Your task to perform on an android device: Open Reddit.com Image 0: 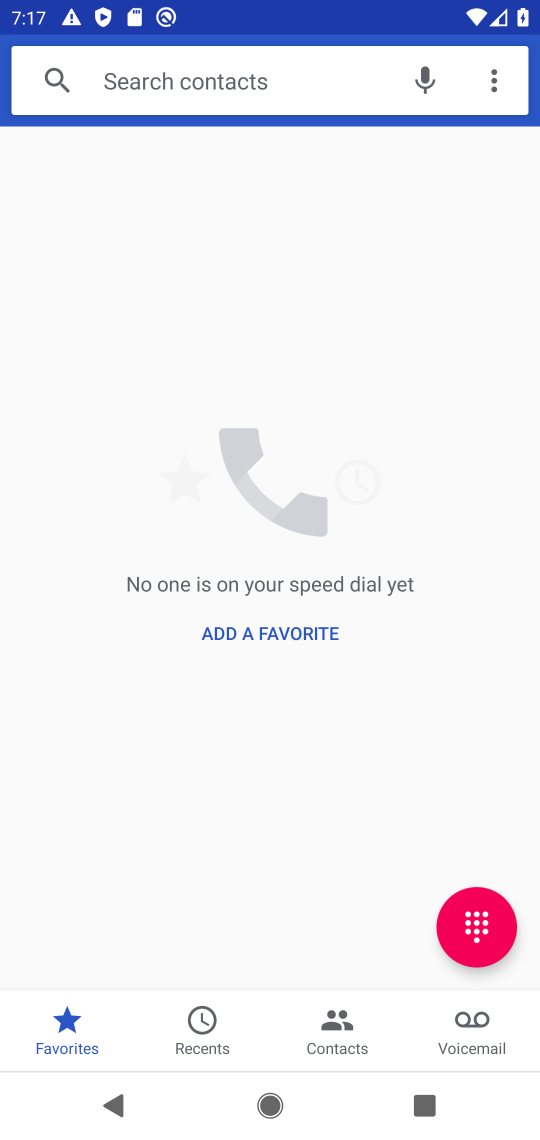
Step 0: press home button
Your task to perform on an android device: Open Reddit.com Image 1: 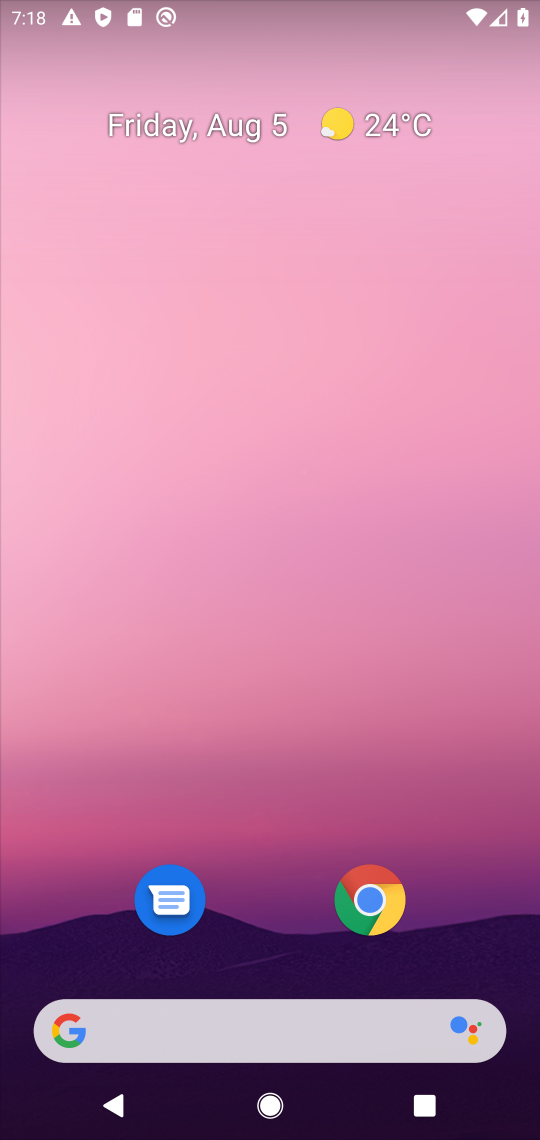
Step 1: drag from (462, 879) to (448, 207)
Your task to perform on an android device: Open Reddit.com Image 2: 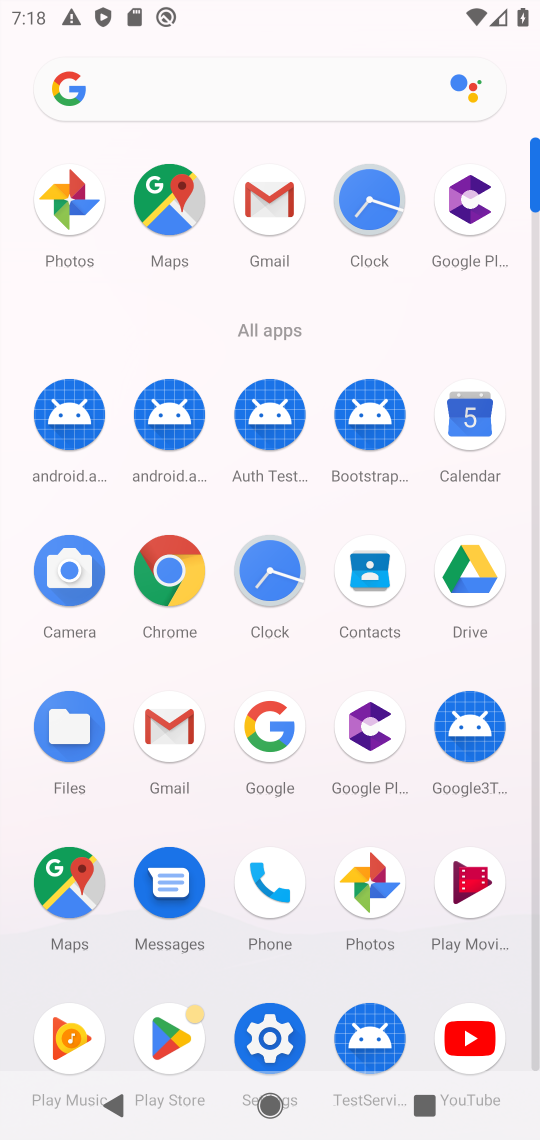
Step 2: click (183, 568)
Your task to perform on an android device: Open Reddit.com Image 3: 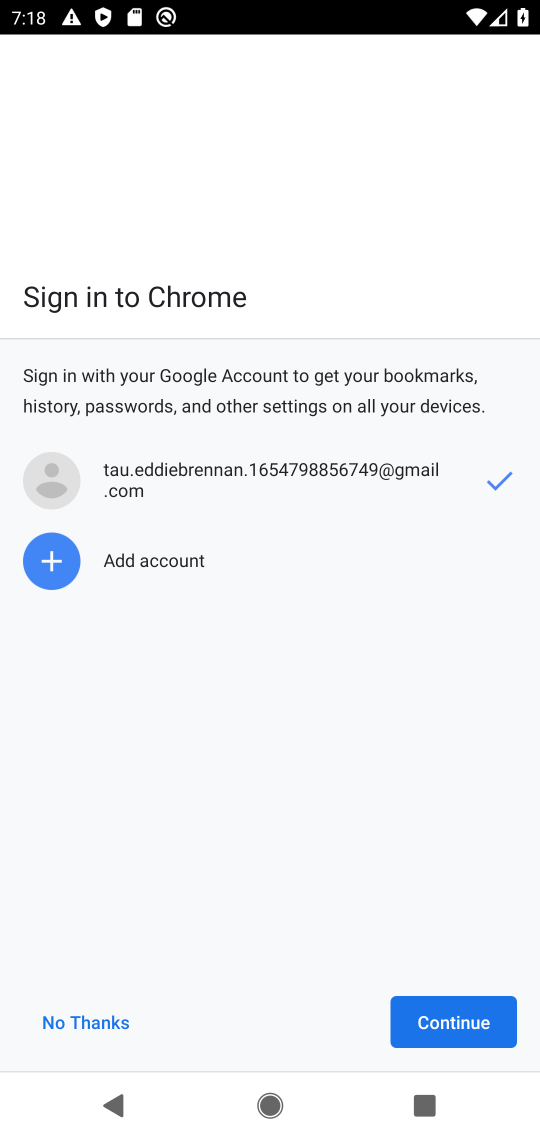
Step 3: click (53, 1028)
Your task to perform on an android device: Open Reddit.com Image 4: 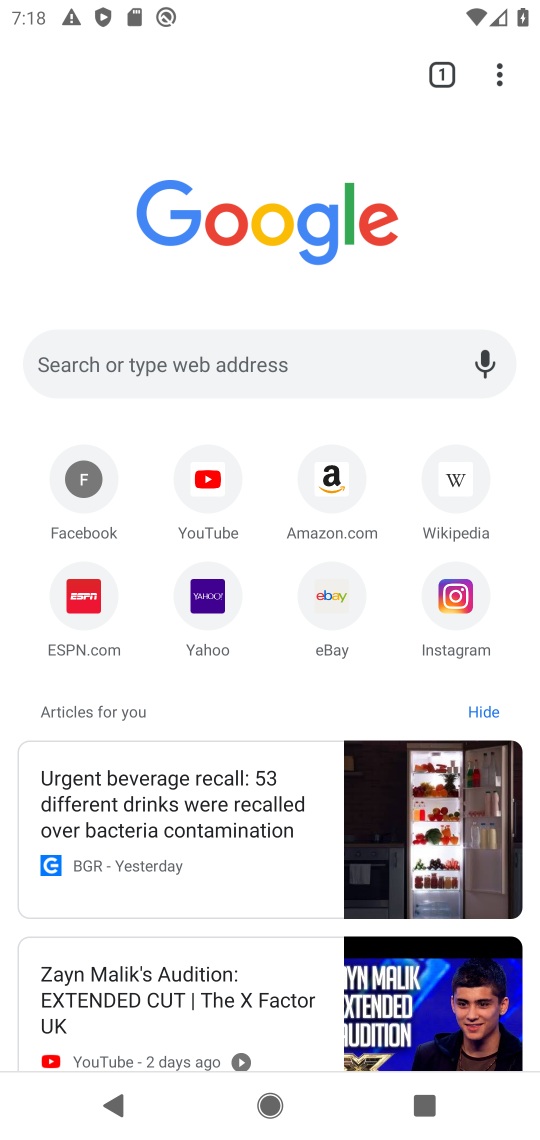
Step 4: click (309, 373)
Your task to perform on an android device: Open Reddit.com Image 5: 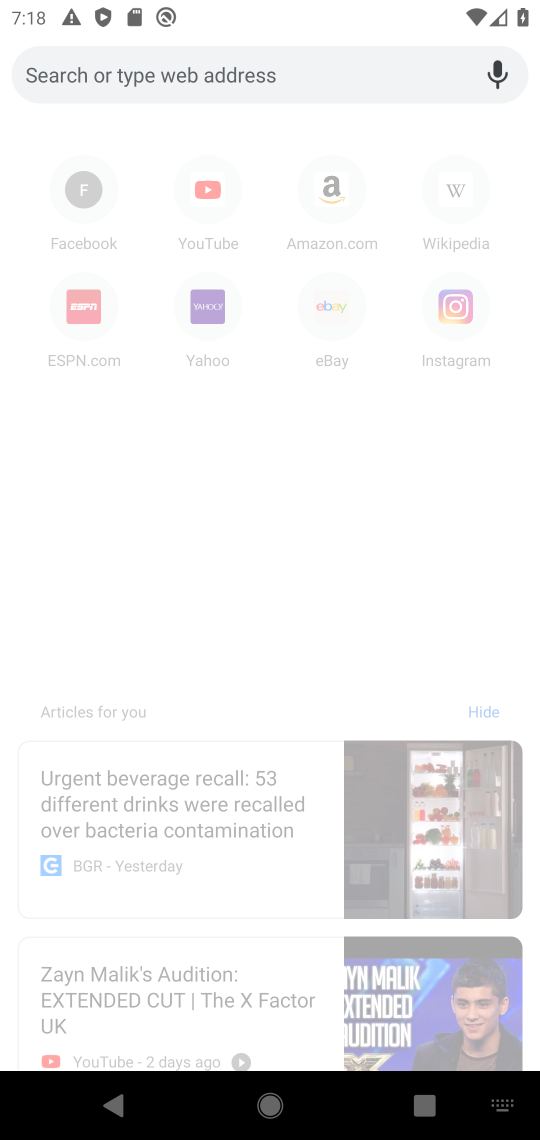
Step 5: type "reddit.com"
Your task to perform on an android device: Open Reddit.com Image 6: 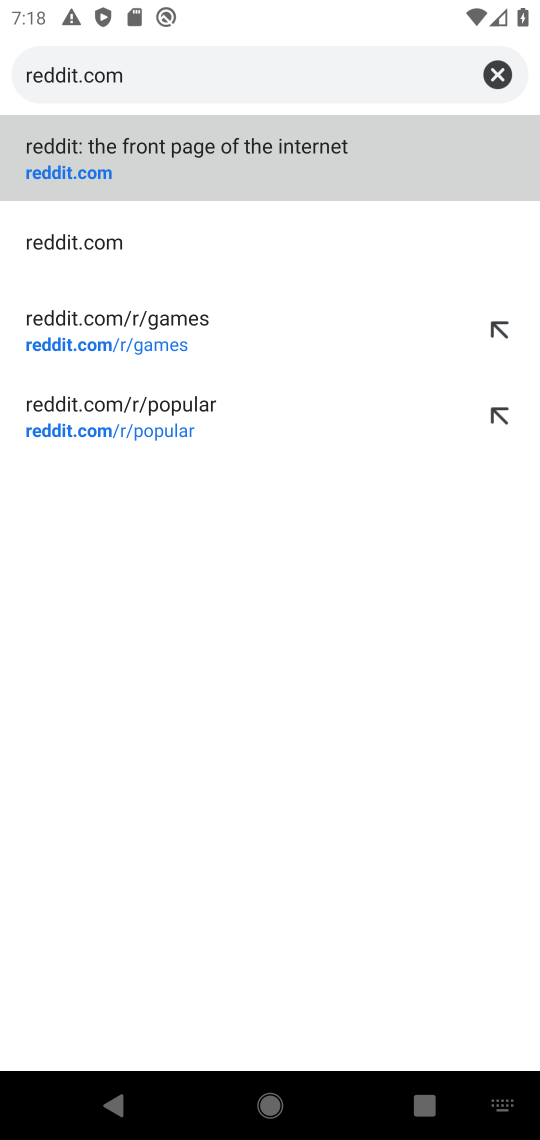
Step 6: click (234, 151)
Your task to perform on an android device: Open Reddit.com Image 7: 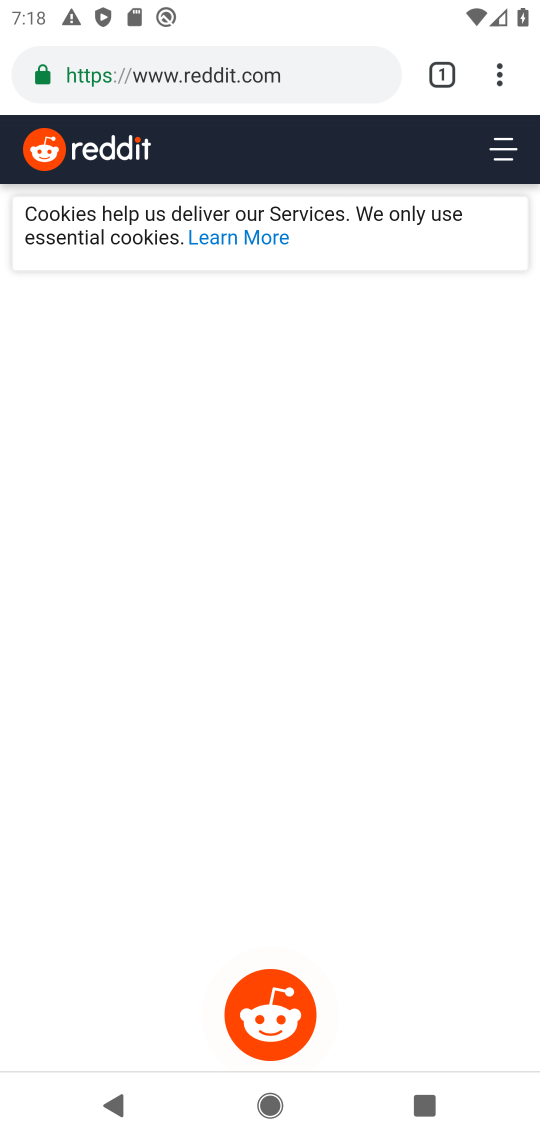
Step 7: task complete